Your task to perform on an android device: delete browsing data in the chrome app Image 0: 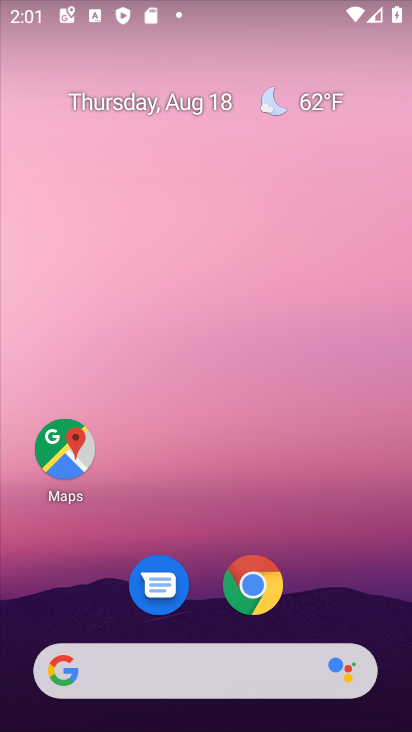
Step 0: click (257, 589)
Your task to perform on an android device: delete browsing data in the chrome app Image 1: 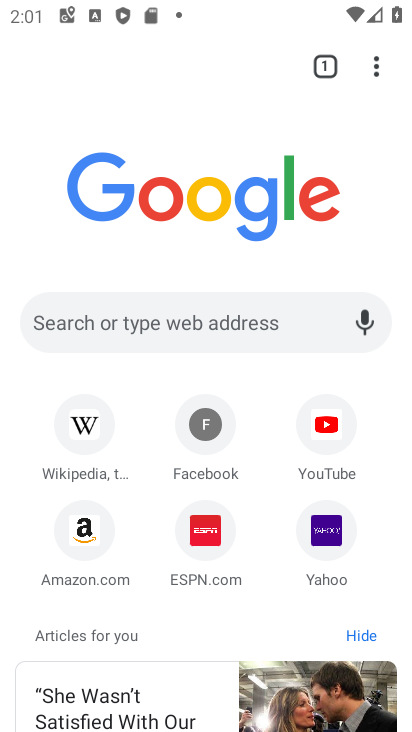
Step 1: click (373, 73)
Your task to perform on an android device: delete browsing data in the chrome app Image 2: 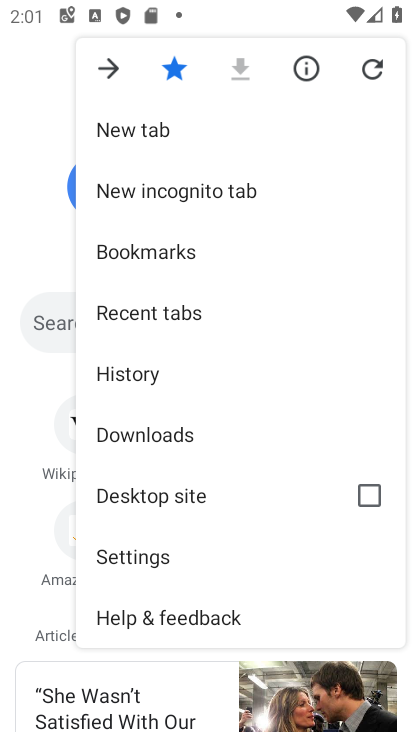
Step 2: click (136, 370)
Your task to perform on an android device: delete browsing data in the chrome app Image 3: 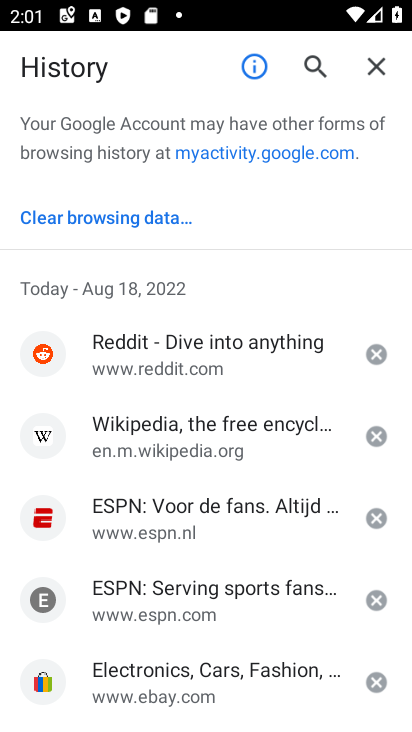
Step 3: click (120, 217)
Your task to perform on an android device: delete browsing data in the chrome app Image 4: 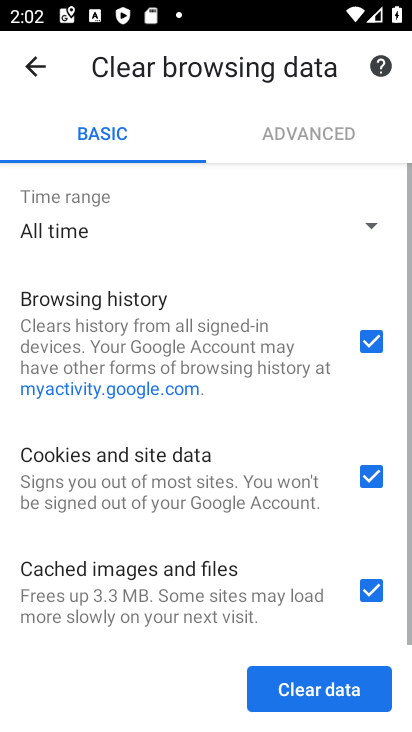
Step 4: click (313, 693)
Your task to perform on an android device: delete browsing data in the chrome app Image 5: 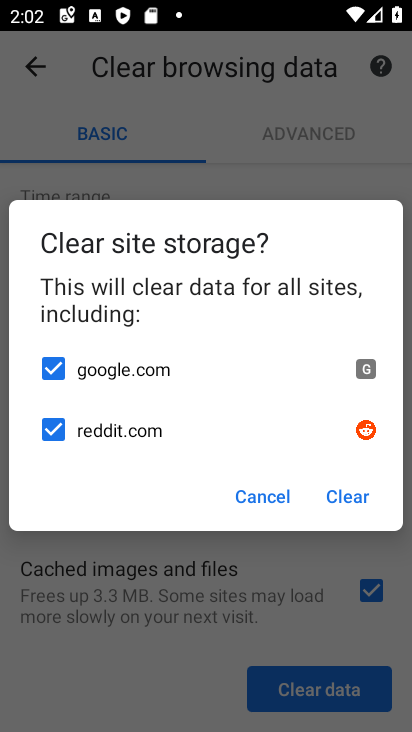
Step 5: click (358, 490)
Your task to perform on an android device: delete browsing data in the chrome app Image 6: 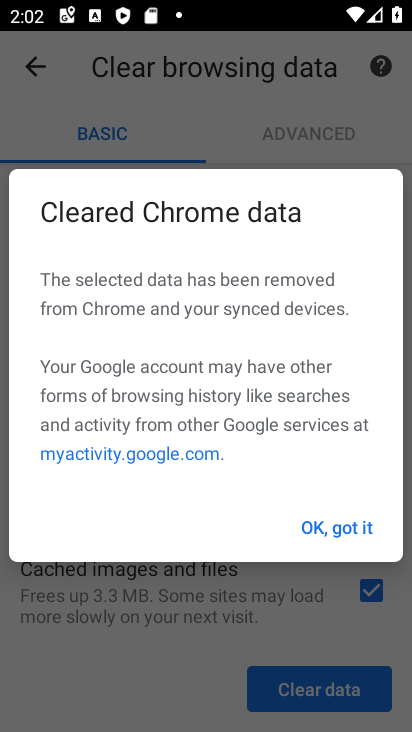
Step 6: click (365, 525)
Your task to perform on an android device: delete browsing data in the chrome app Image 7: 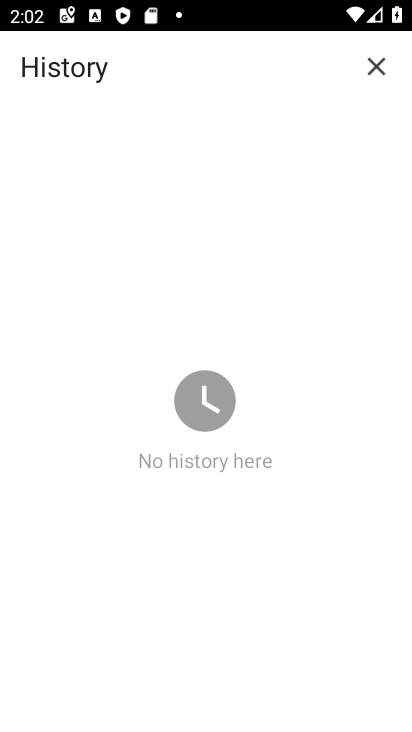
Step 7: task complete